Your task to perform on an android device: change timer sound Image 0: 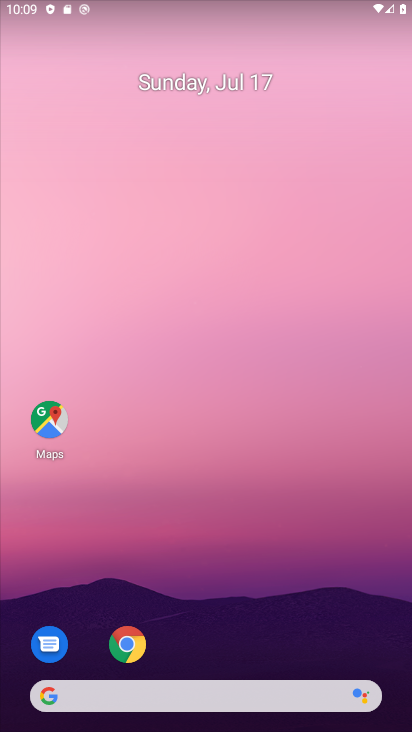
Step 0: drag from (283, 692) to (220, 96)
Your task to perform on an android device: change timer sound Image 1: 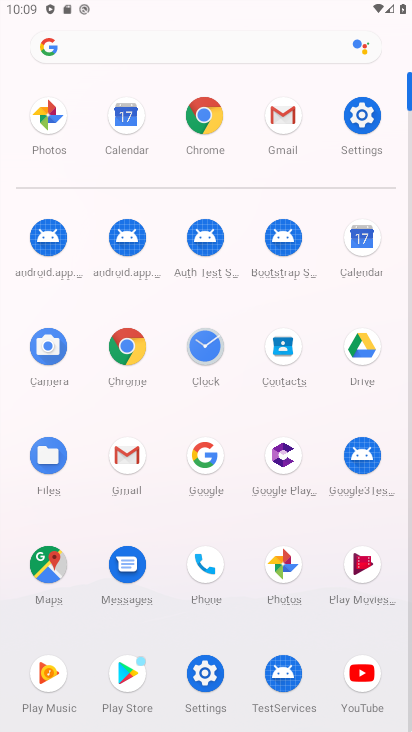
Step 1: click (210, 339)
Your task to perform on an android device: change timer sound Image 2: 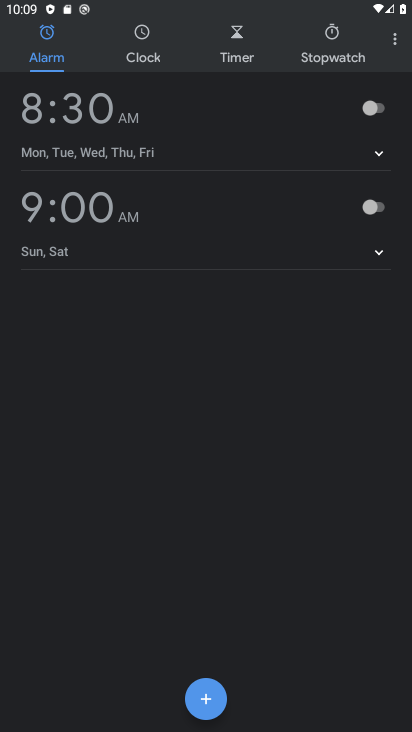
Step 2: click (399, 36)
Your task to perform on an android device: change timer sound Image 3: 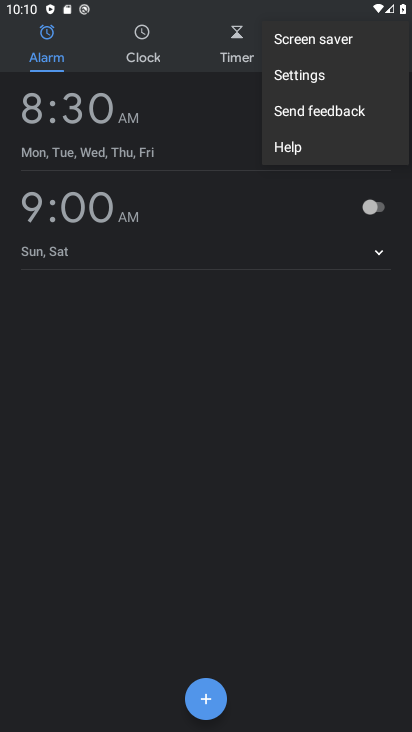
Step 3: click (282, 83)
Your task to perform on an android device: change timer sound Image 4: 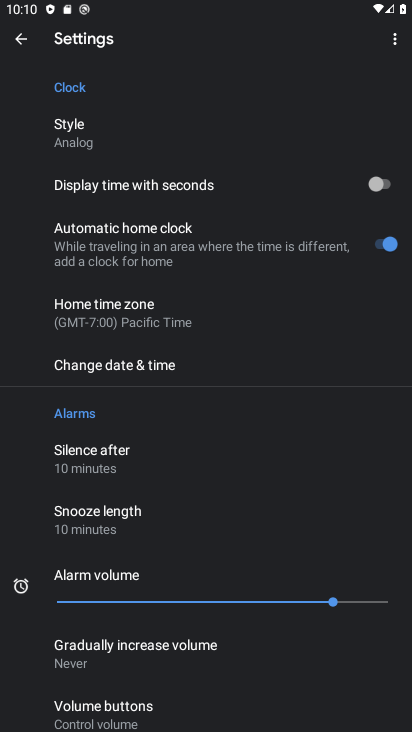
Step 4: drag from (191, 564) to (209, 109)
Your task to perform on an android device: change timer sound Image 5: 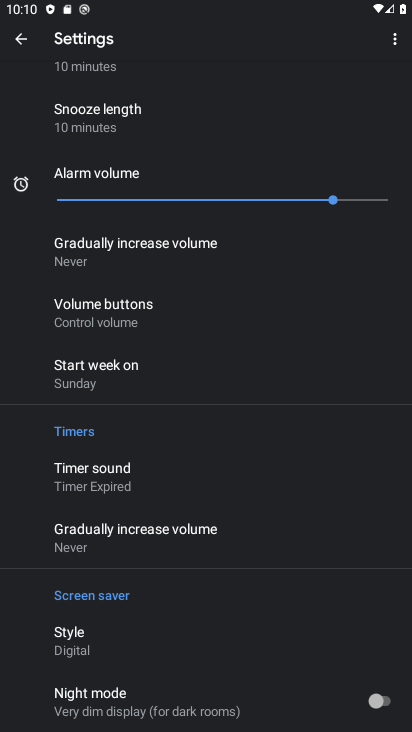
Step 5: click (114, 487)
Your task to perform on an android device: change timer sound Image 6: 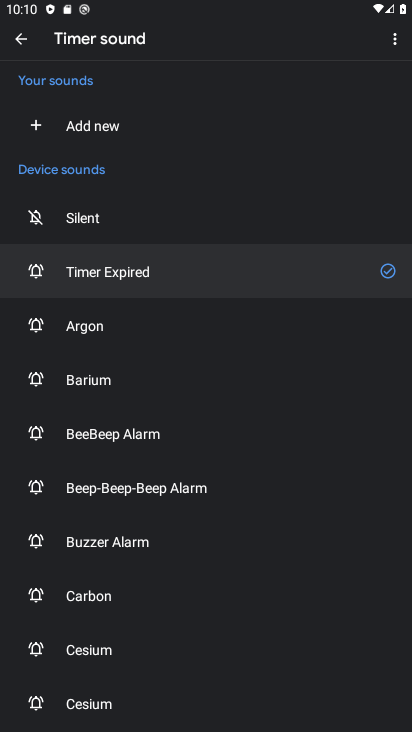
Step 6: click (74, 369)
Your task to perform on an android device: change timer sound Image 7: 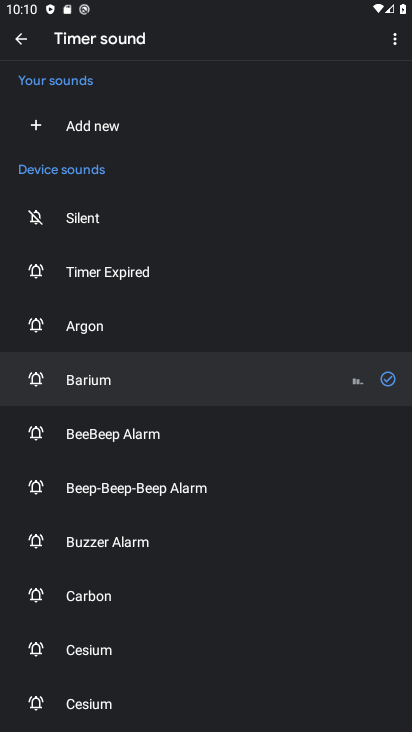
Step 7: task complete